Your task to perform on an android device: change alarm snooze length Image 0: 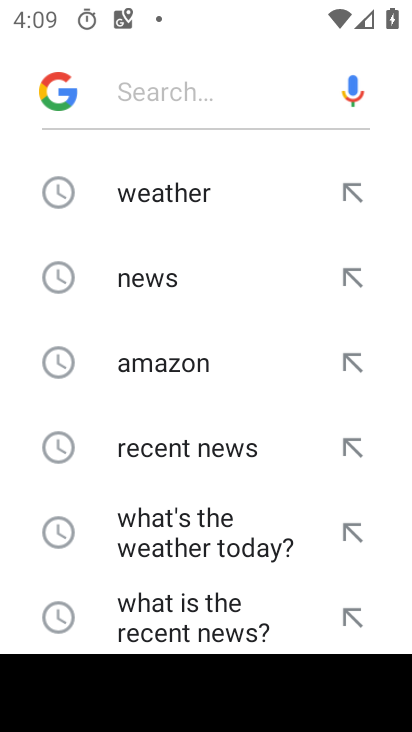
Step 0: press home button
Your task to perform on an android device: change alarm snooze length Image 1: 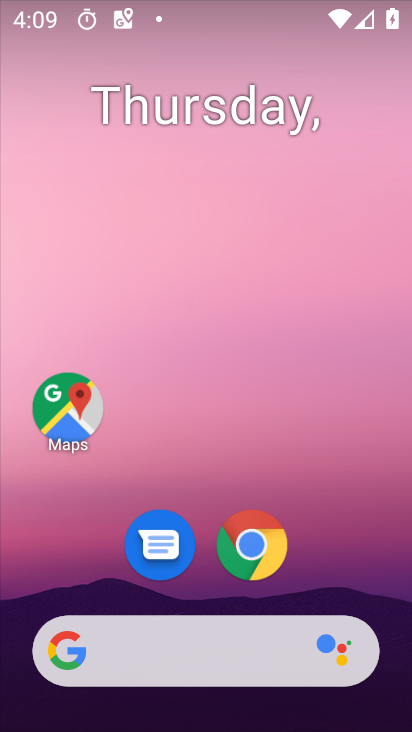
Step 1: drag from (190, 710) to (191, 166)
Your task to perform on an android device: change alarm snooze length Image 2: 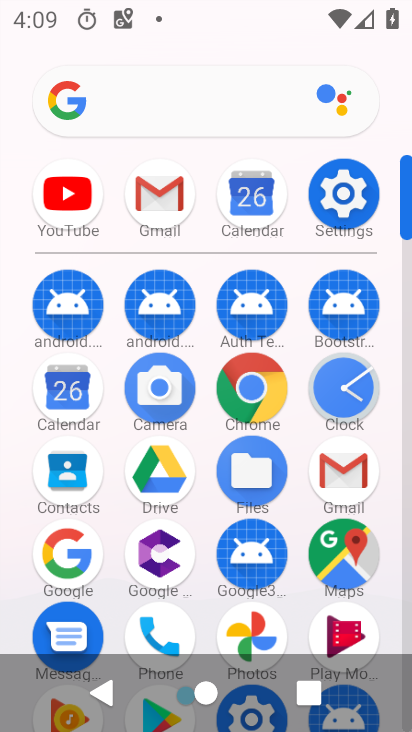
Step 2: click (315, 392)
Your task to perform on an android device: change alarm snooze length Image 3: 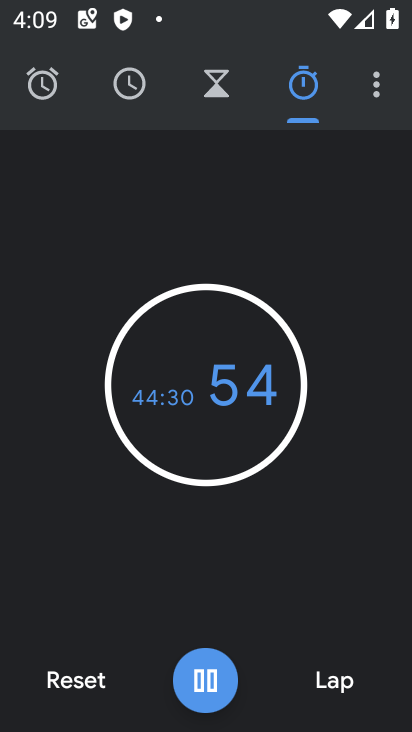
Step 3: click (378, 93)
Your task to perform on an android device: change alarm snooze length Image 4: 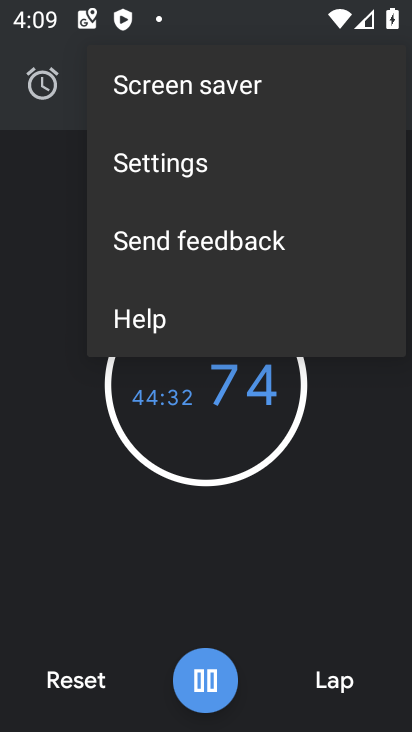
Step 4: click (170, 161)
Your task to perform on an android device: change alarm snooze length Image 5: 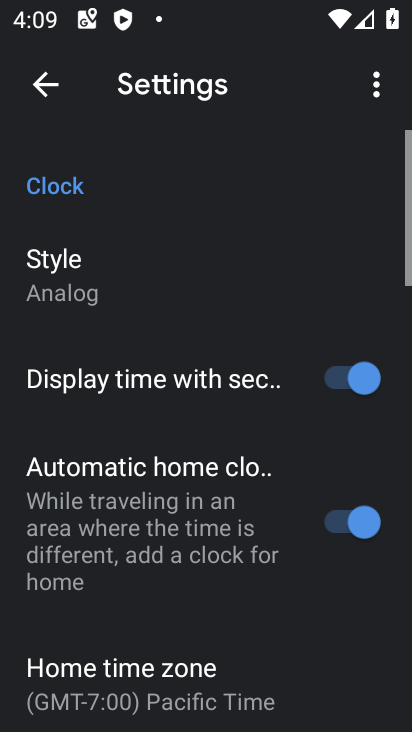
Step 5: drag from (100, 664) to (107, 235)
Your task to perform on an android device: change alarm snooze length Image 6: 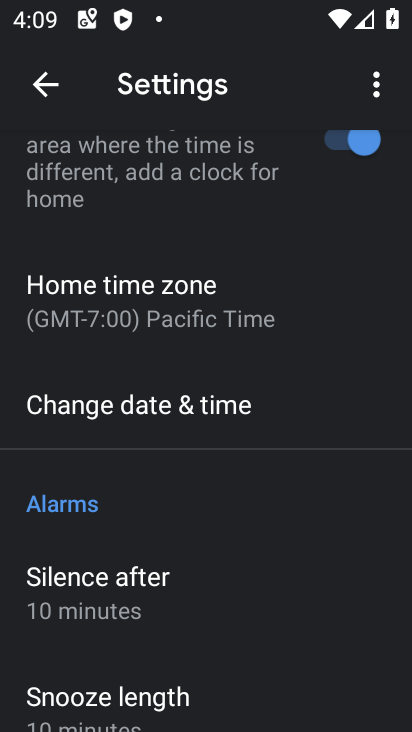
Step 6: drag from (110, 671) to (122, 332)
Your task to perform on an android device: change alarm snooze length Image 7: 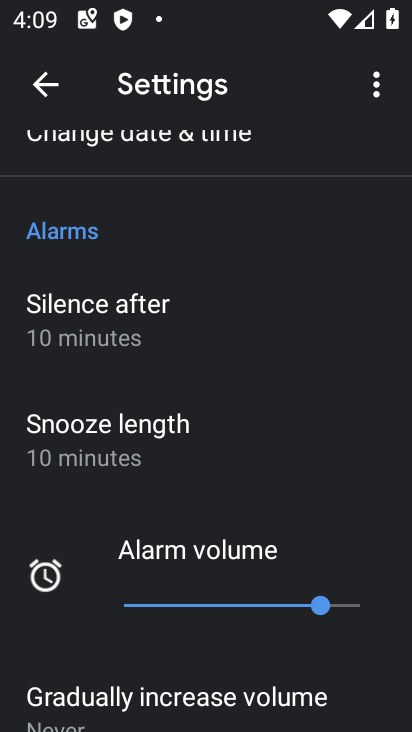
Step 7: click (100, 436)
Your task to perform on an android device: change alarm snooze length Image 8: 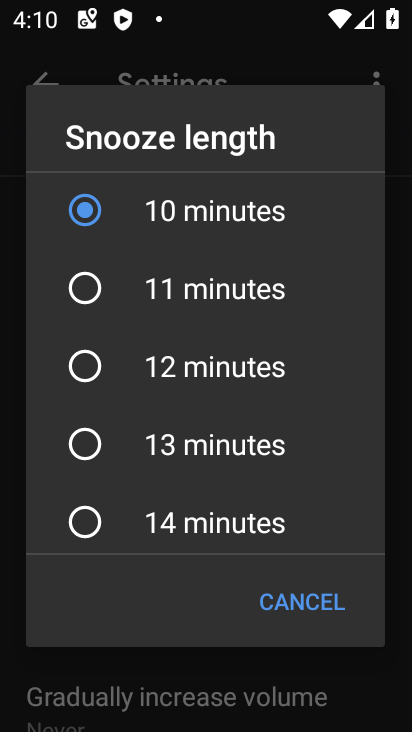
Step 8: click (81, 525)
Your task to perform on an android device: change alarm snooze length Image 9: 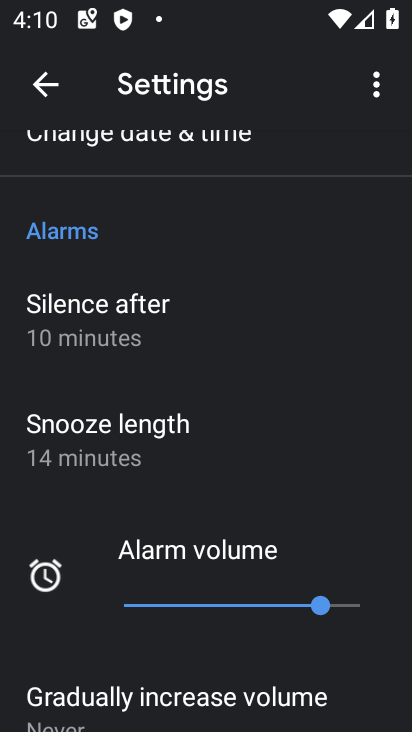
Step 9: task complete